Your task to perform on an android device: Go to privacy settings Image 0: 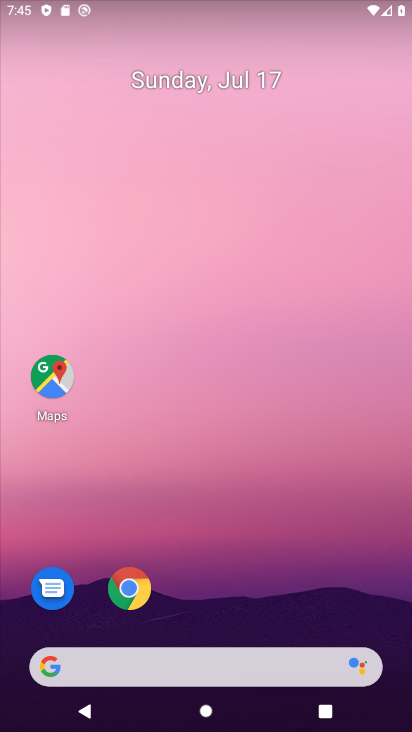
Step 0: drag from (242, 379) to (265, 113)
Your task to perform on an android device: Go to privacy settings Image 1: 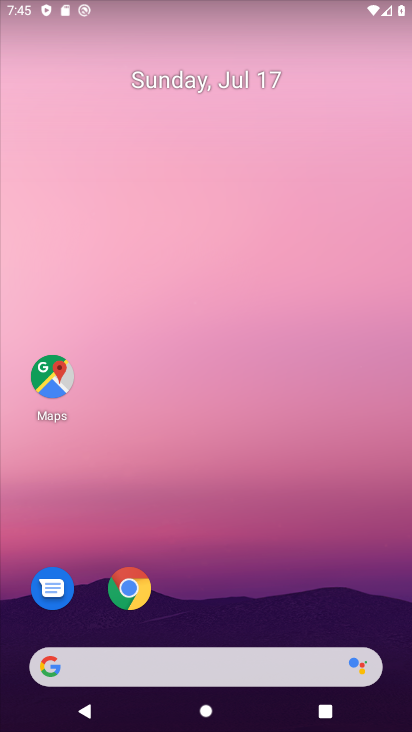
Step 1: drag from (238, 645) to (287, 96)
Your task to perform on an android device: Go to privacy settings Image 2: 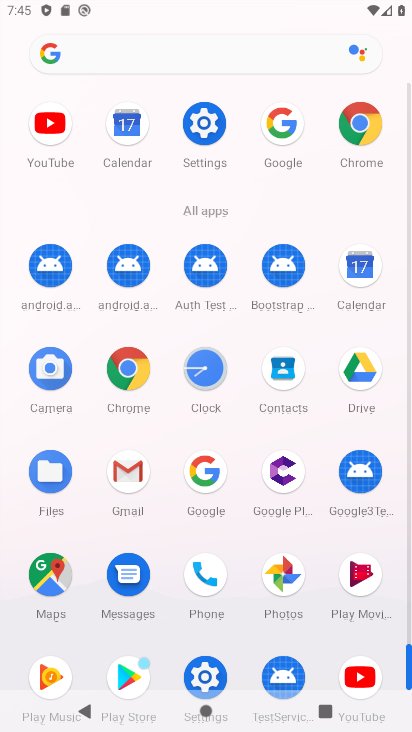
Step 2: click (213, 140)
Your task to perform on an android device: Go to privacy settings Image 3: 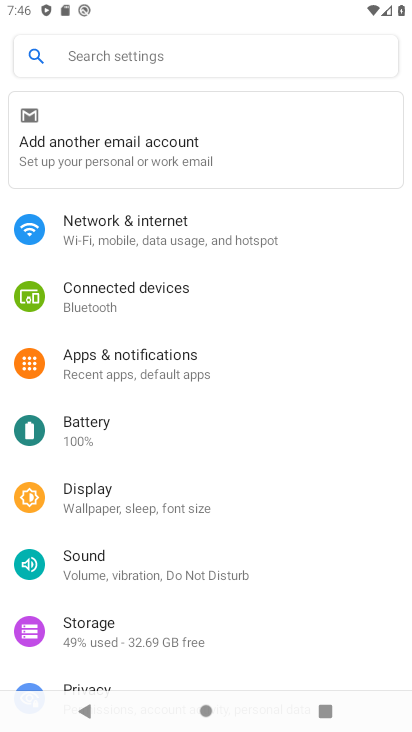
Step 3: drag from (195, 562) to (280, 250)
Your task to perform on an android device: Go to privacy settings Image 4: 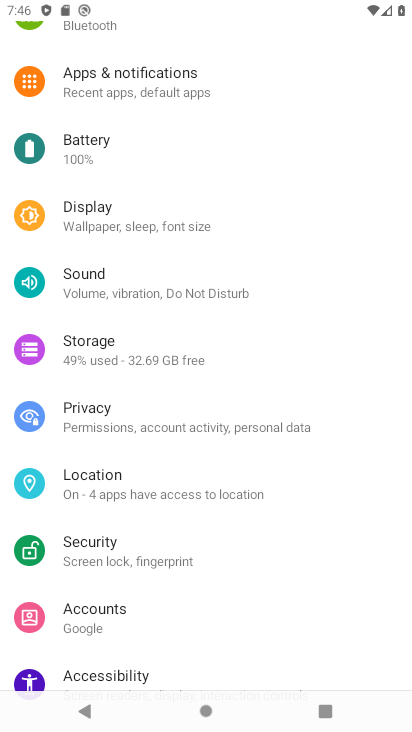
Step 4: click (185, 430)
Your task to perform on an android device: Go to privacy settings Image 5: 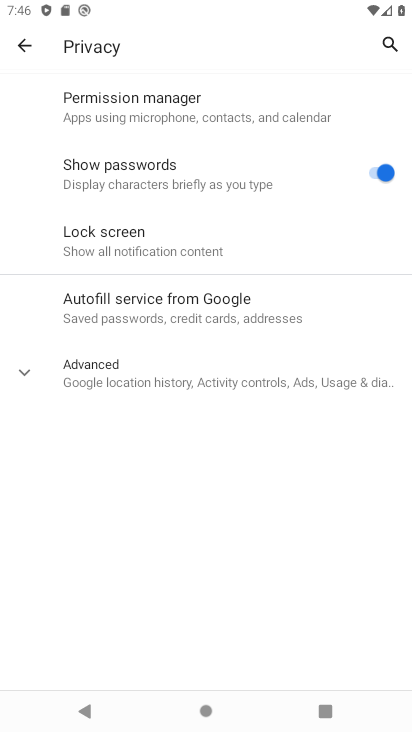
Step 5: task complete